Your task to perform on an android device: empty trash in the gmail app Image 0: 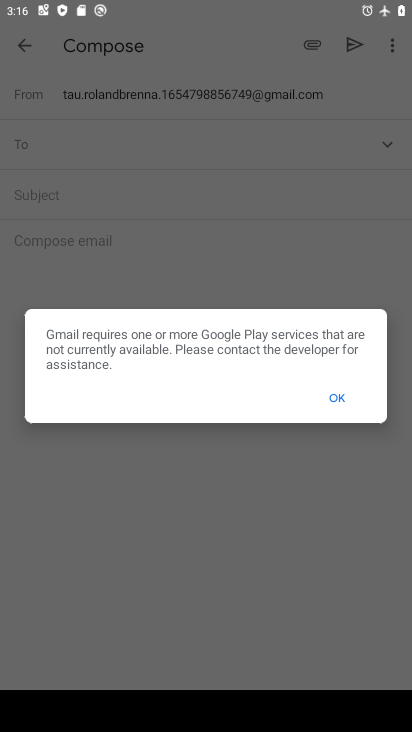
Step 0: press home button
Your task to perform on an android device: empty trash in the gmail app Image 1: 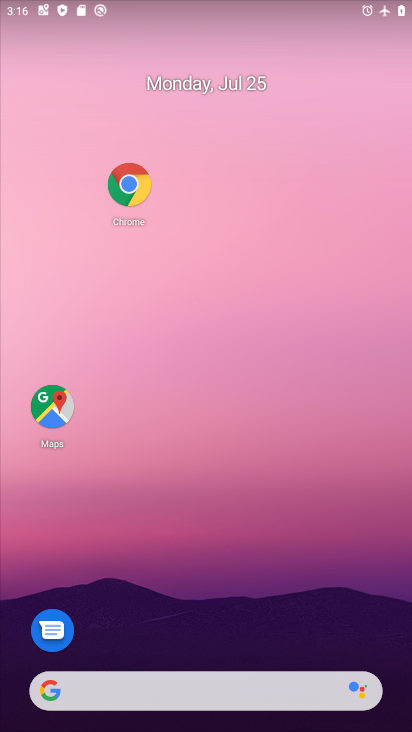
Step 1: drag from (255, 654) to (241, 12)
Your task to perform on an android device: empty trash in the gmail app Image 2: 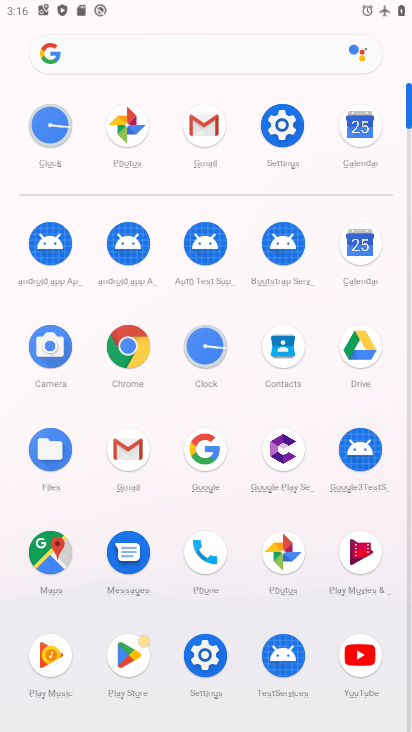
Step 2: click (187, 146)
Your task to perform on an android device: empty trash in the gmail app Image 3: 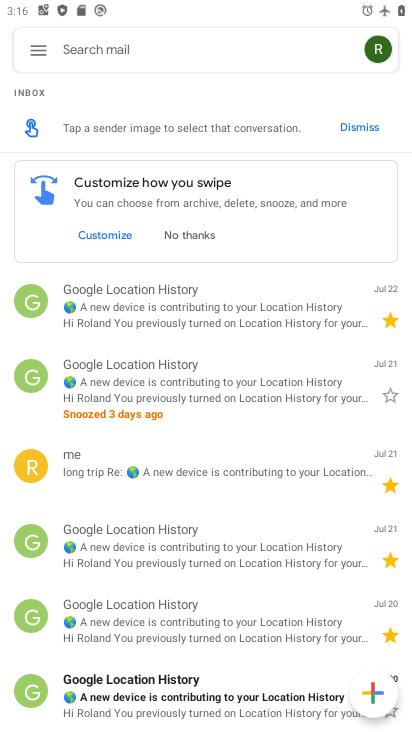
Step 3: click (32, 52)
Your task to perform on an android device: empty trash in the gmail app Image 4: 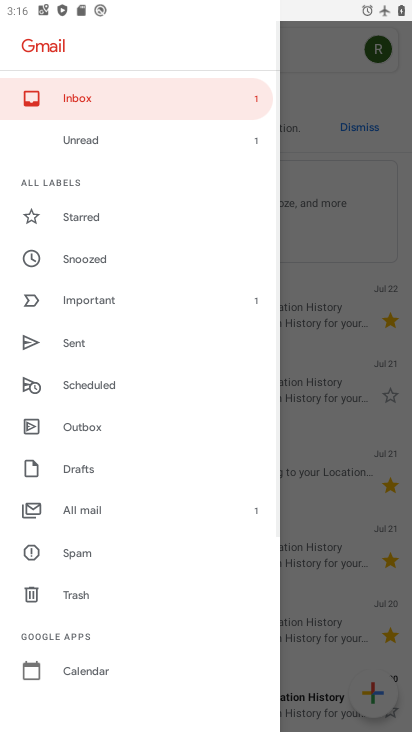
Step 4: click (114, 598)
Your task to perform on an android device: empty trash in the gmail app Image 5: 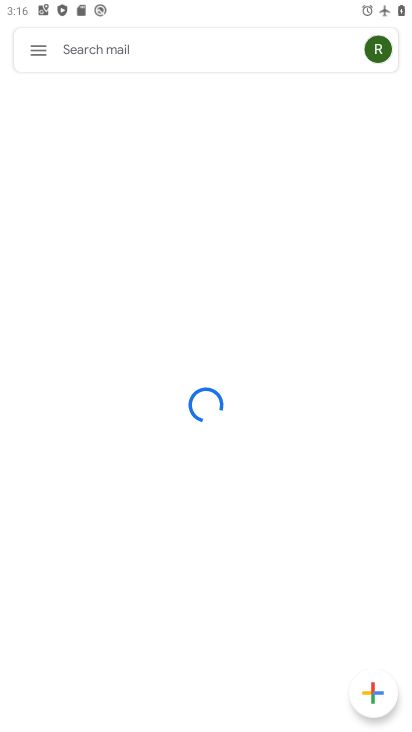
Step 5: task complete